Your task to perform on an android device: visit the assistant section in the google photos Image 0: 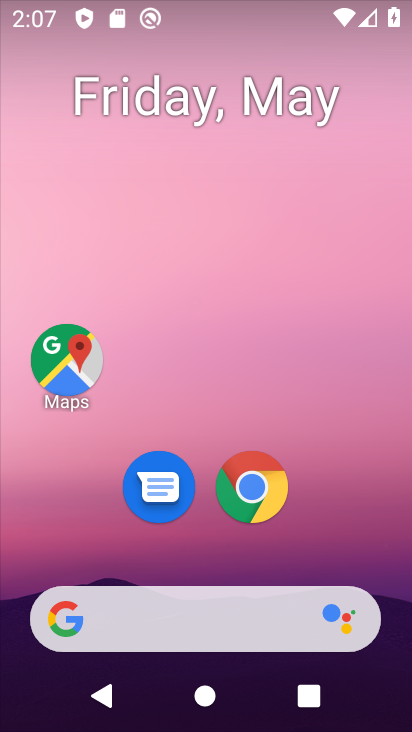
Step 0: drag from (191, 520) to (241, 98)
Your task to perform on an android device: visit the assistant section in the google photos Image 1: 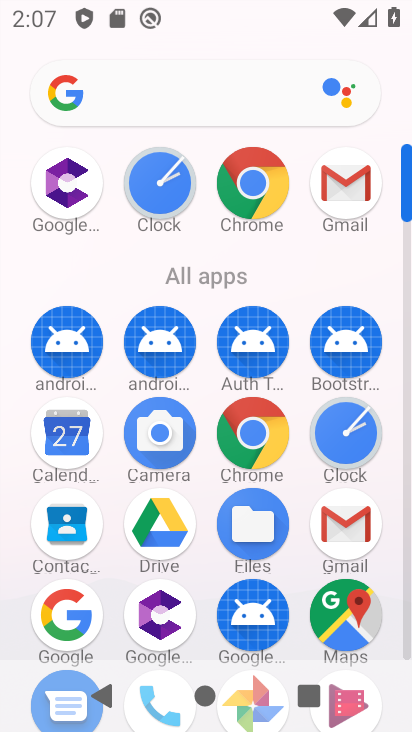
Step 1: drag from (230, 626) to (308, 169)
Your task to perform on an android device: visit the assistant section in the google photos Image 2: 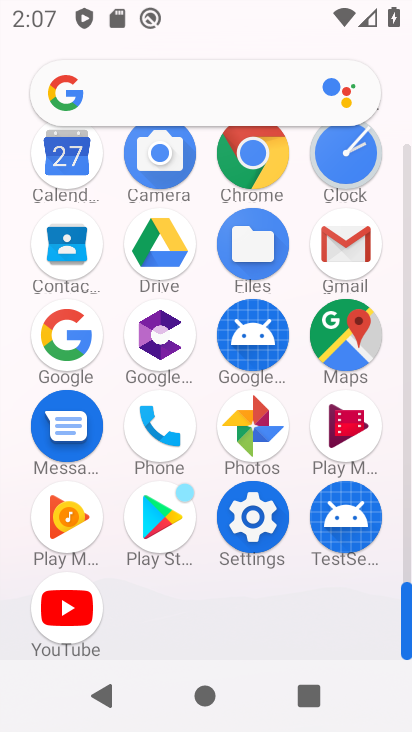
Step 2: click (236, 416)
Your task to perform on an android device: visit the assistant section in the google photos Image 3: 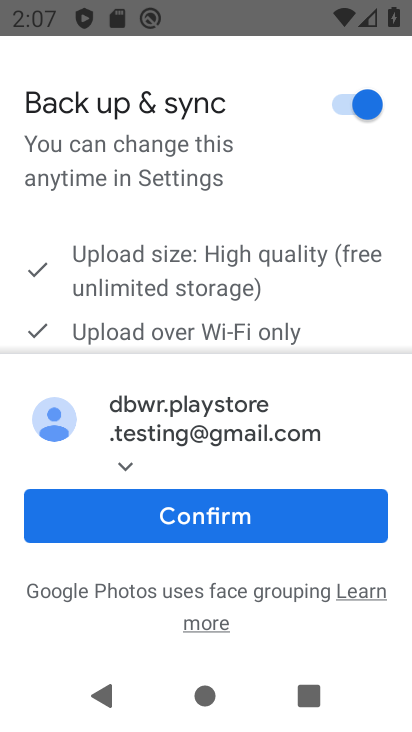
Step 3: click (244, 522)
Your task to perform on an android device: visit the assistant section in the google photos Image 4: 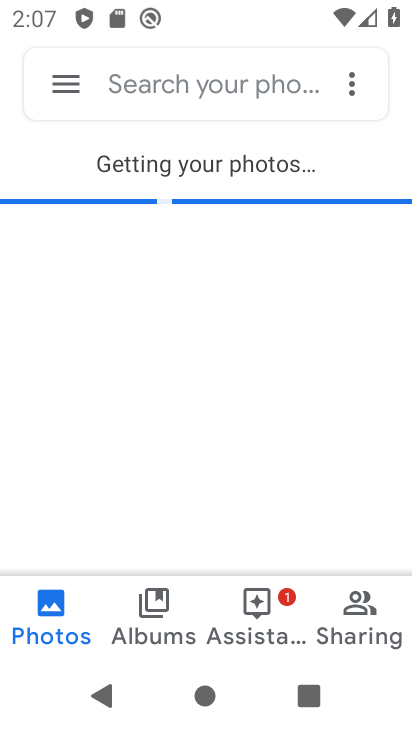
Step 4: click (234, 598)
Your task to perform on an android device: visit the assistant section in the google photos Image 5: 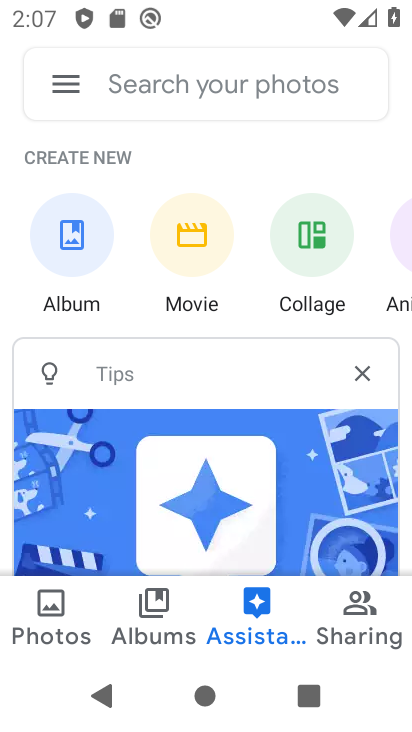
Step 5: task complete